Your task to perform on an android device: Do I have any events tomorrow? Image 0: 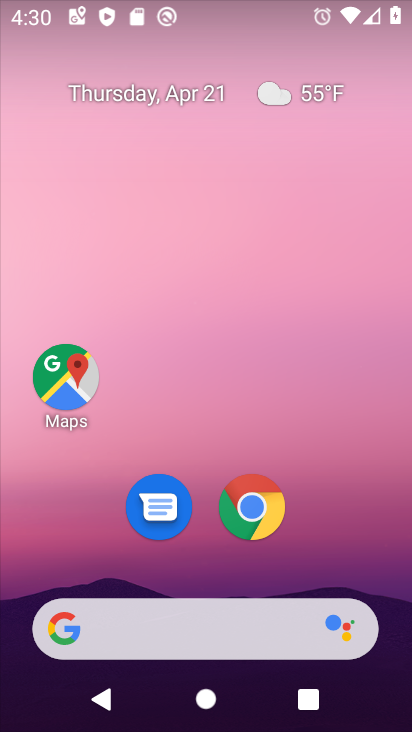
Step 0: drag from (316, 433) to (237, 102)
Your task to perform on an android device: Do I have any events tomorrow? Image 1: 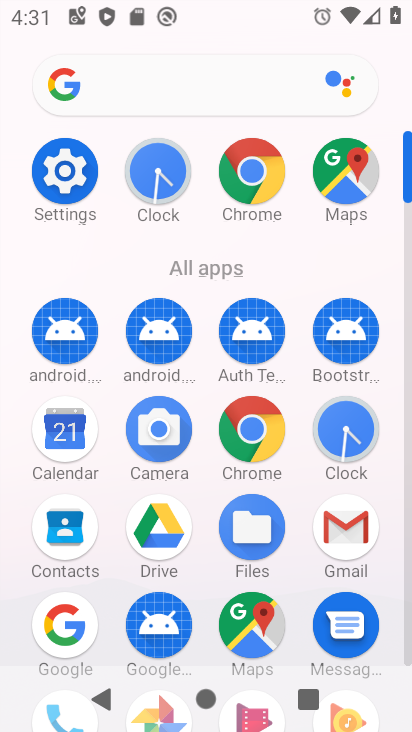
Step 1: click (87, 441)
Your task to perform on an android device: Do I have any events tomorrow? Image 2: 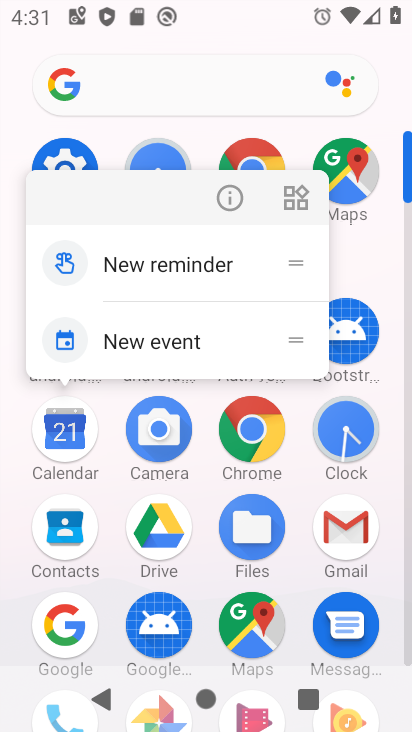
Step 2: click (80, 439)
Your task to perform on an android device: Do I have any events tomorrow? Image 3: 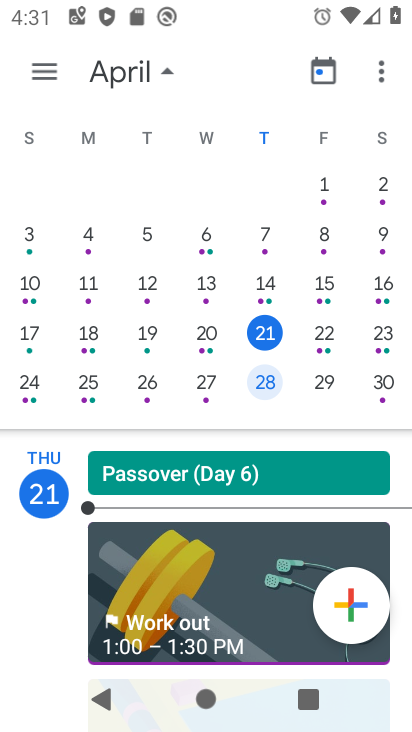
Step 3: click (312, 342)
Your task to perform on an android device: Do I have any events tomorrow? Image 4: 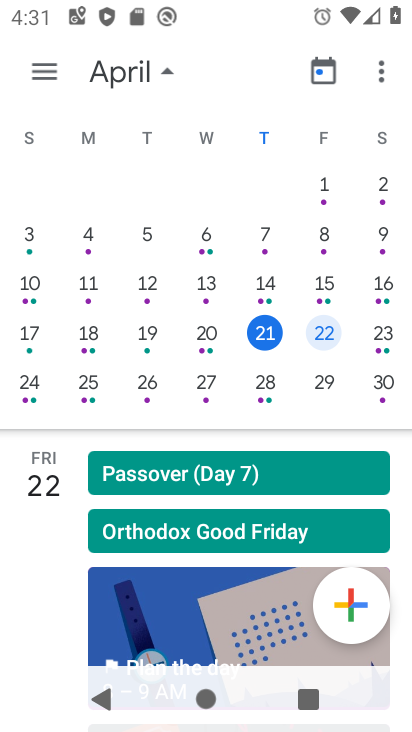
Step 4: click (312, 341)
Your task to perform on an android device: Do I have any events tomorrow? Image 5: 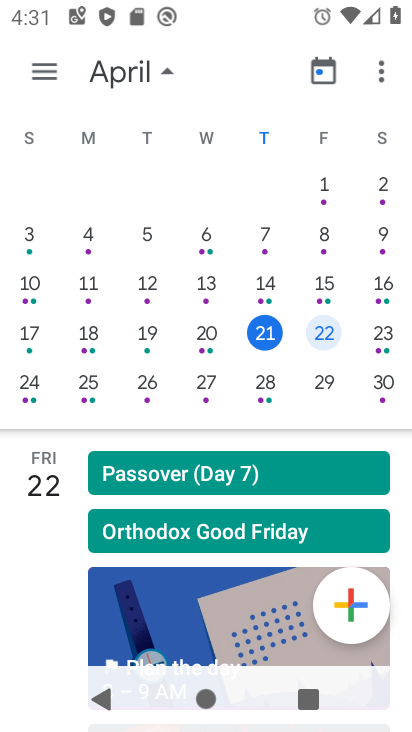
Step 5: click (312, 339)
Your task to perform on an android device: Do I have any events tomorrow? Image 6: 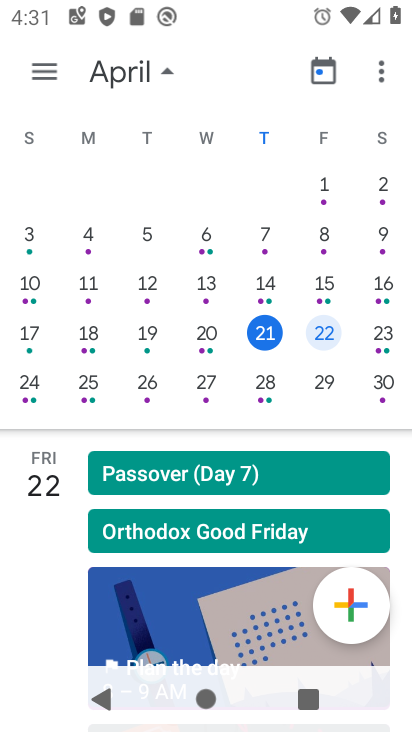
Step 6: click (337, 340)
Your task to perform on an android device: Do I have any events tomorrow? Image 7: 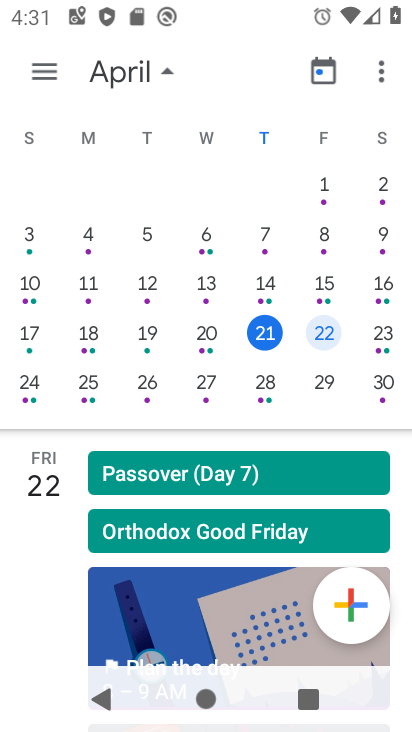
Step 7: task complete